Your task to perform on an android device: Go to settings Image 0: 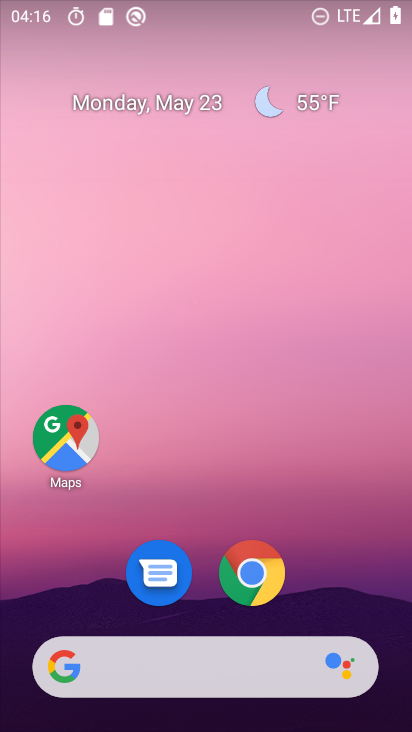
Step 0: drag from (328, 609) to (261, 135)
Your task to perform on an android device: Go to settings Image 1: 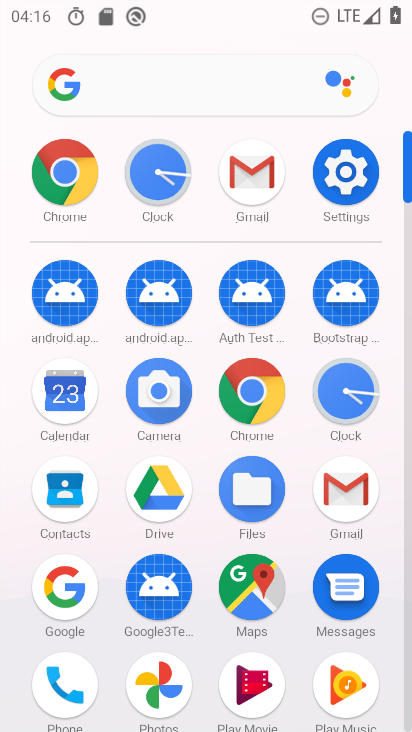
Step 1: click (345, 172)
Your task to perform on an android device: Go to settings Image 2: 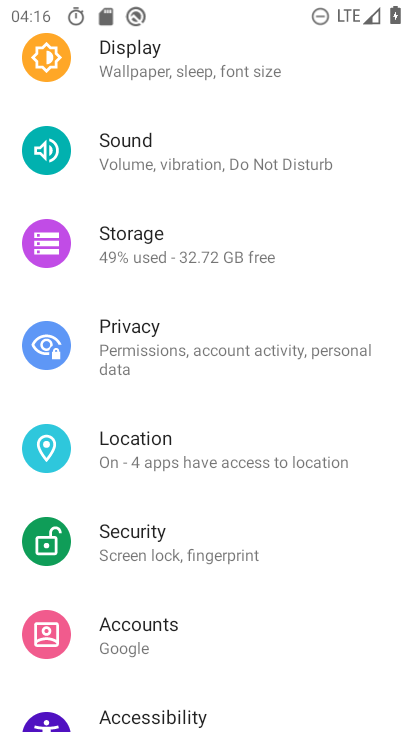
Step 2: task complete